Your task to perform on an android device: Go to privacy settings Image 0: 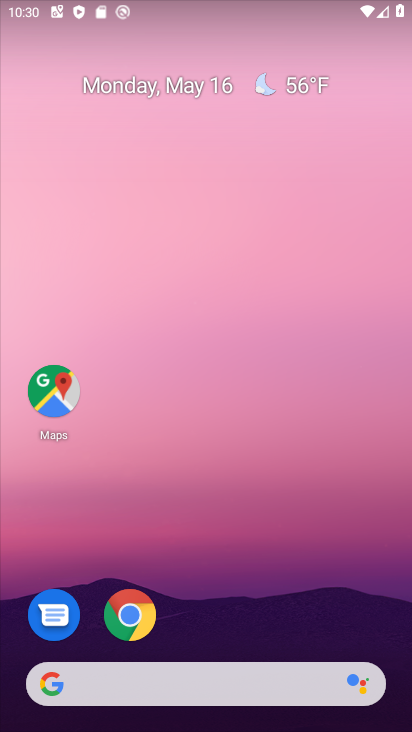
Step 0: drag from (301, 695) to (331, 194)
Your task to perform on an android device: Go to privacy settings Image 1: 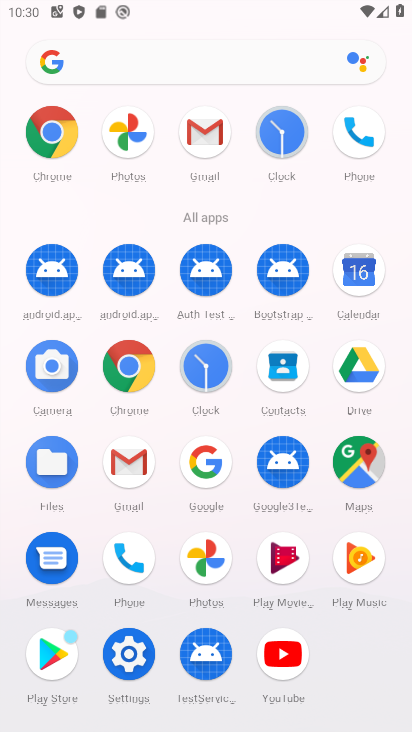
Step 1: click (130, 640)
Your task to perform on an android device: Go to privacy settings Image 2: 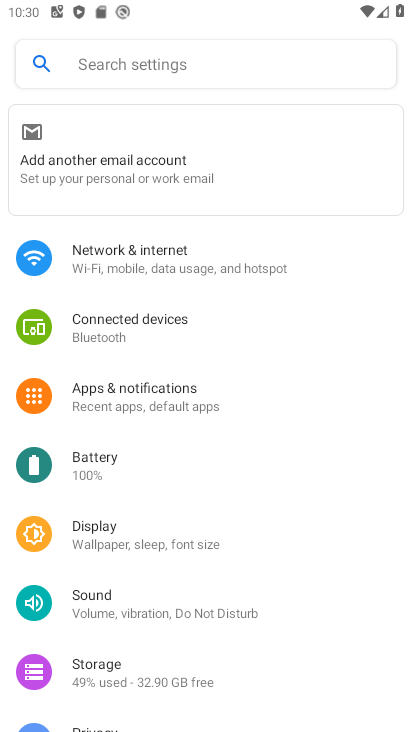
Step 2: drag from (86, 669) to (94, 405)
Your task to perform on an android device: Go to privacy settings Image 3: 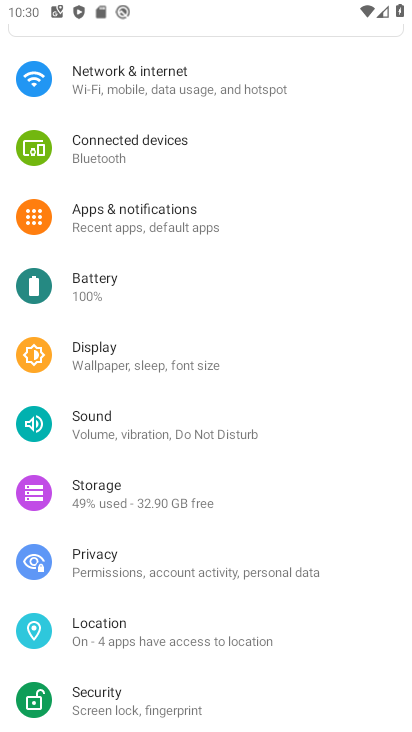
Step 3: drag from (166, 665) to (194, 500)
Your task to perform on an android device: Go to privacy settings Image 4: 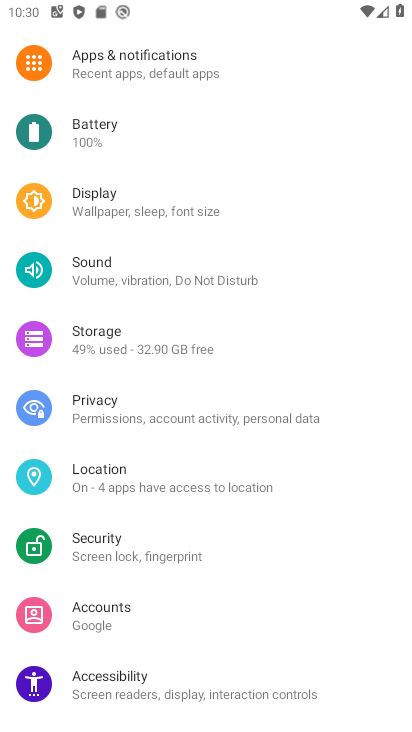
Step 4: drag from (153, 568) to (181, 443)
Your task to perform on an android device: Go to privacy settings Image 5: 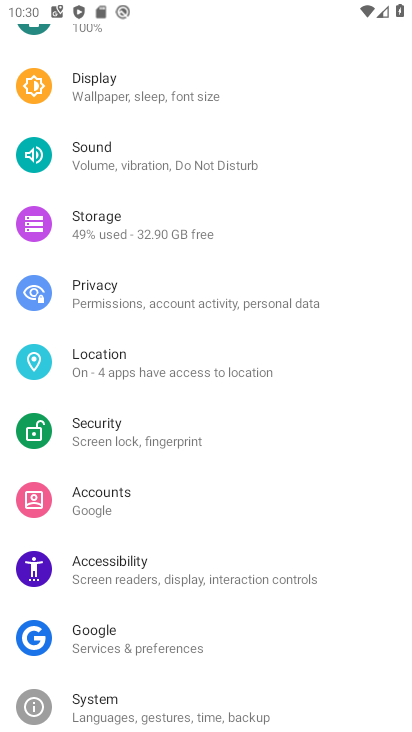
Step 5: drag from (142, 633) to (168, 473)
Your task to perform on an android device: Go to privacy settings Image 6: 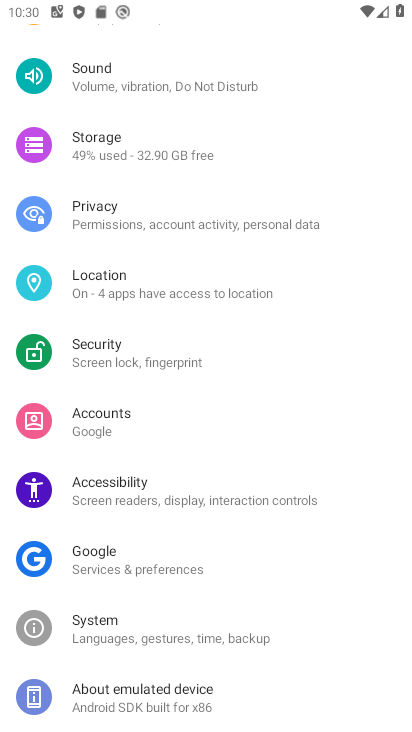
Step 6: click (161, 204)
Your task to perform on an android device: Go to privacy settings Image 7: 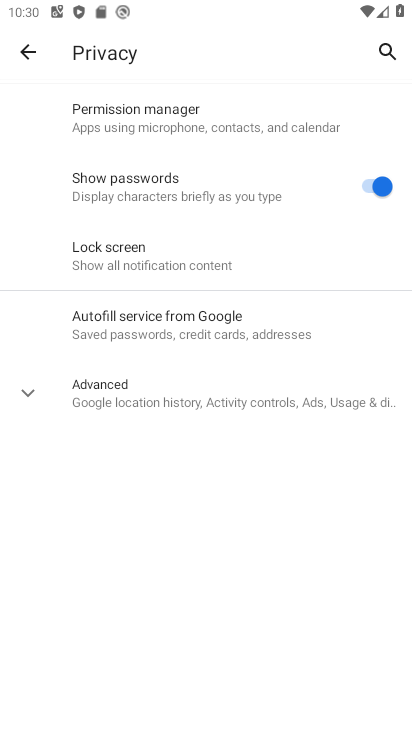
Step 7: task complete